Your task to perform on an android device: add a label to a message in the gmail app Image 0: 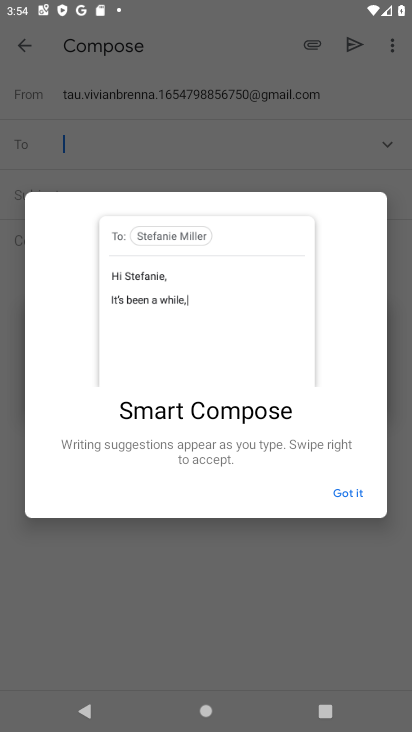
Step 0: press home button
Your task to perform on an android device: add a label to a message in the gmail app Image 1: 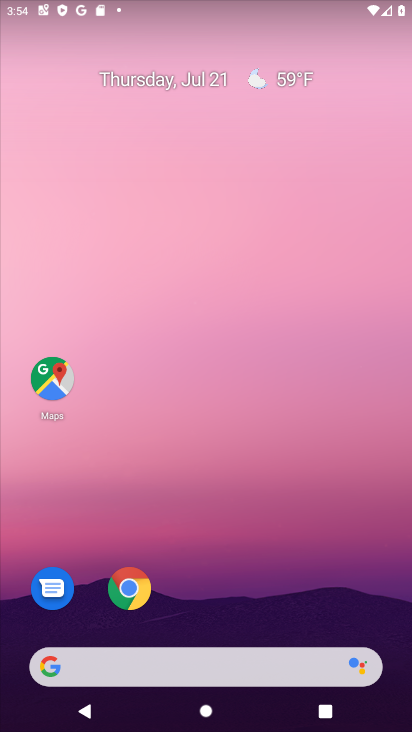
Step 1: drag from (246, 724) to (262, 439)
Your task to perform on an android device: add a label to a message in the gmail app Image 2: 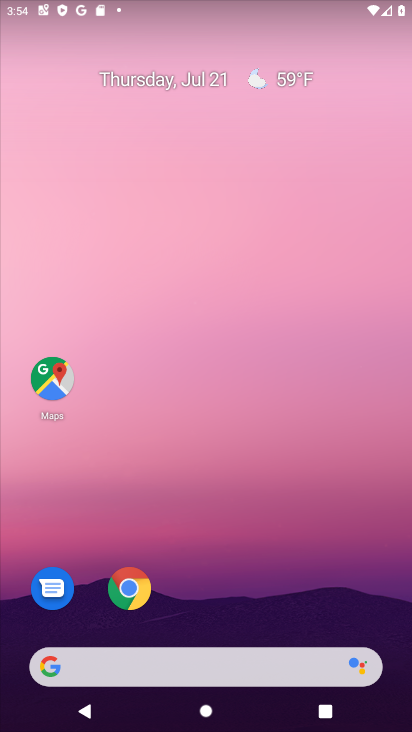
Step 2: drag from (231, 692) to (245, 112)
Your task to perform on an android device: add a label to a message in the gmail app Image 3: 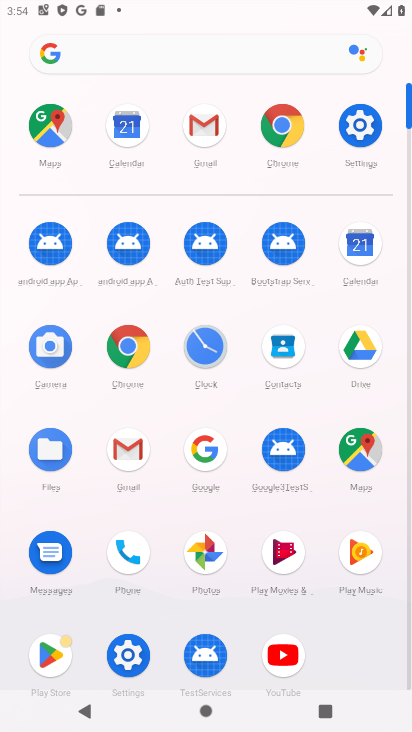
Step 3: click (132, 447)
Your task to perform on an android device: add a label to a message in the gmail app Image 4: 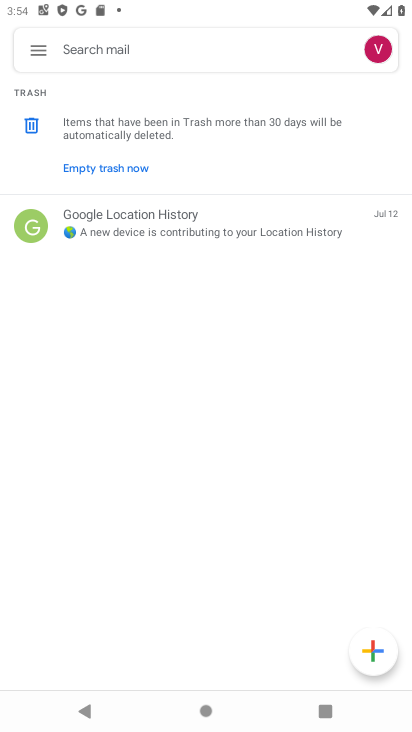
Step 4: click (32, 58)
Your task to perform on an android device: add a label to a message in the gmail app Image 5: 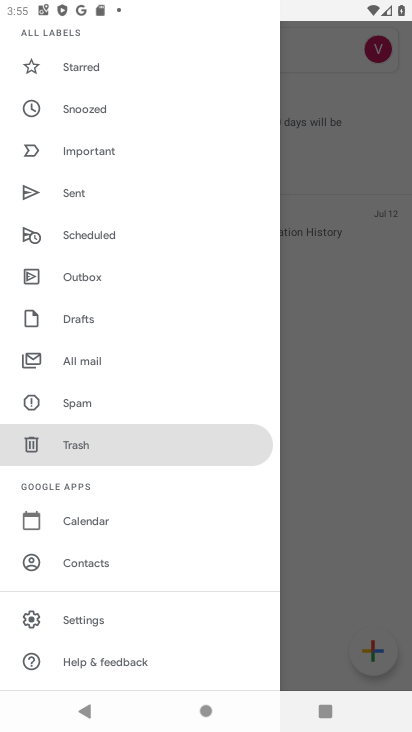
Step 5: drag from (108, 146) to (131, 700)
Your task to perform on an android device: add a label to a message in the gmail app Image 6: 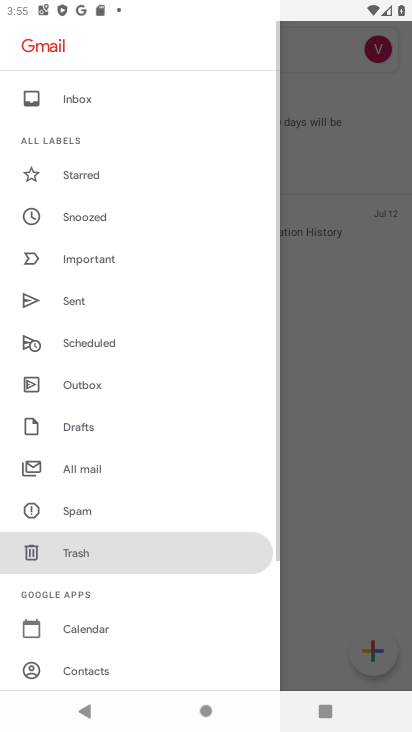
Step 6: click (79, 94)
Your task to perform on an android device: add a label to a message in the gmail app Image 7: 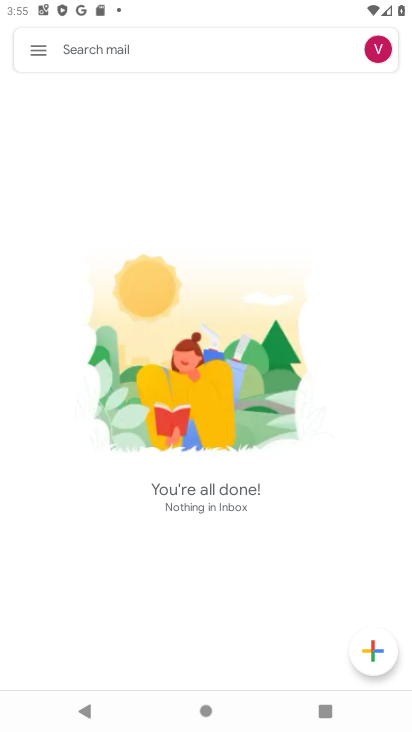
Step 7: task complete